Your task to perform on an android device: What is the recent news? Image 0: 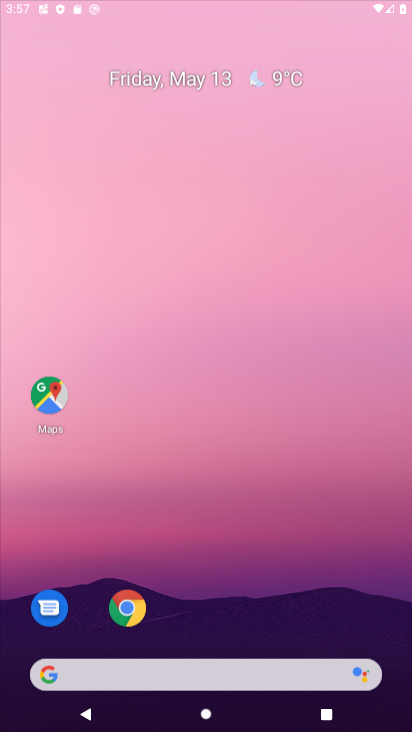
Step 0: click (210, 347)
Your task to perform on an android device: What is the recent news? Image 1: 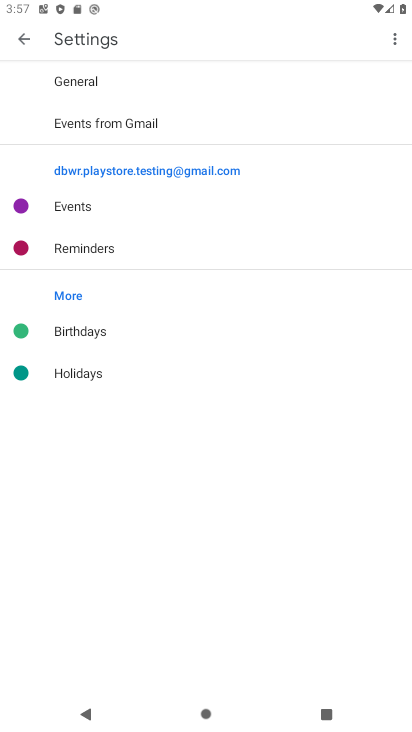
Step 1: press home button
Your task to perform on an android device: What is the recent news? Image 2: 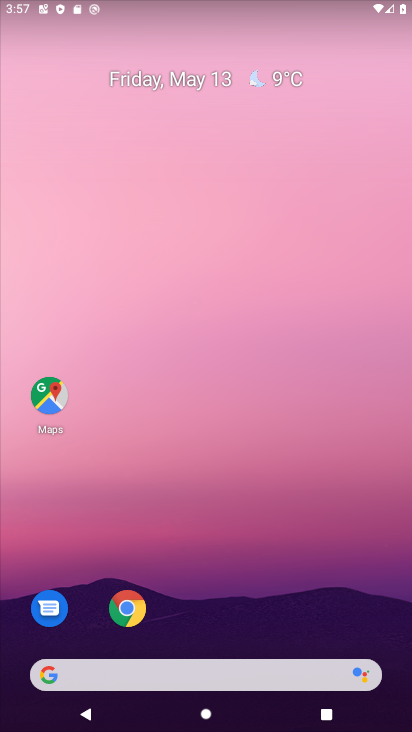
Step 2: drag from (118, 660) to (147, 378)
Your task to perform on an android device: What is the recent news? Image 3: 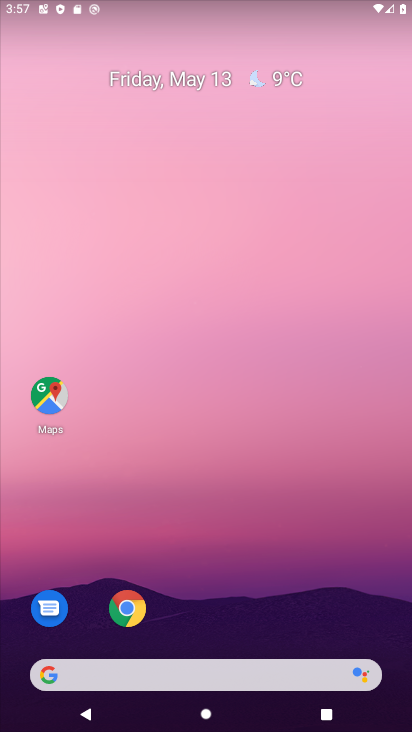
Step 3: drag from (210, 601) to (207, 198)
Your task to perform on an android device: What is the recent news? Image 4: 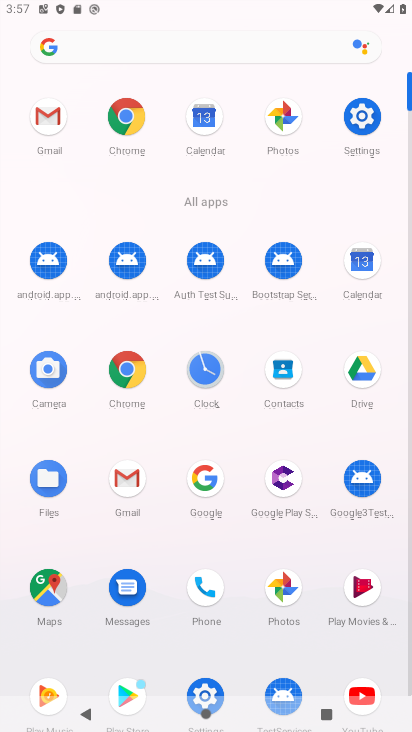
Step 4: click (206, 476)
Your task to perform on an android device: What is the recent news? Image 5: 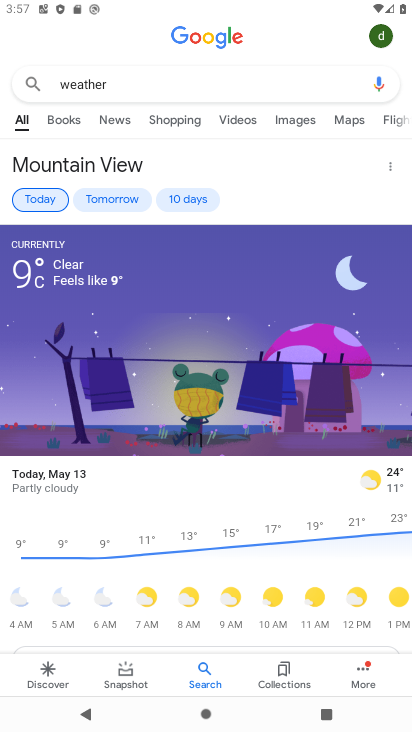
Step 5: click (167, 79)
Your task to perform on an android device: What is the recent news? Image 6: 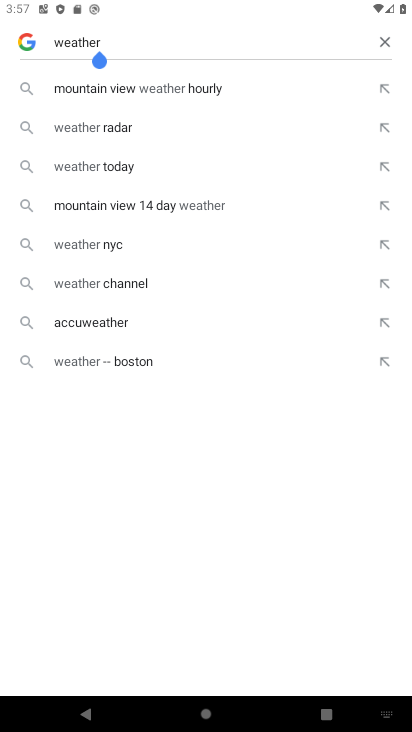
Step 6: click (380, 40)
Your task to perform on an android device: What is the recent news? Image 7: 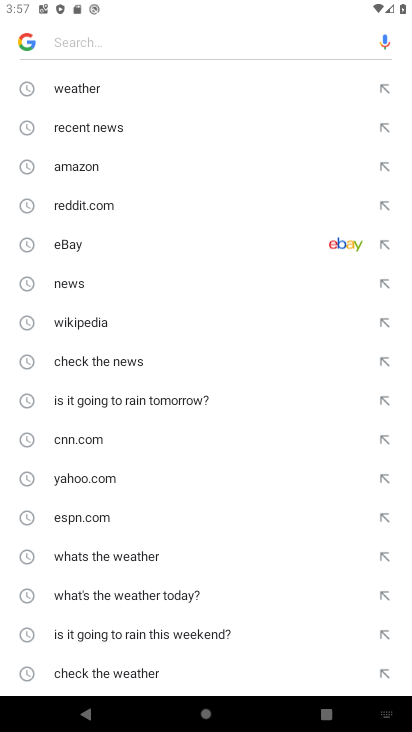
Step 7: click (74, 133)
Your task to perform on an android device: What is the recent news? Image 8: 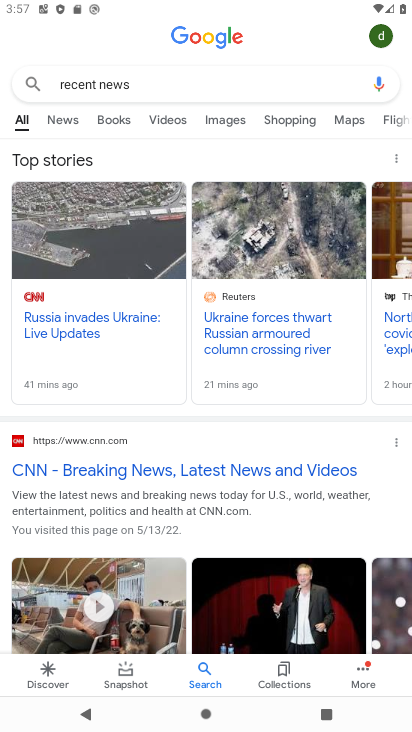
Step 8: task complete